Your task to perform on an android device: Set the phone to "Do not disturb". Image 0: 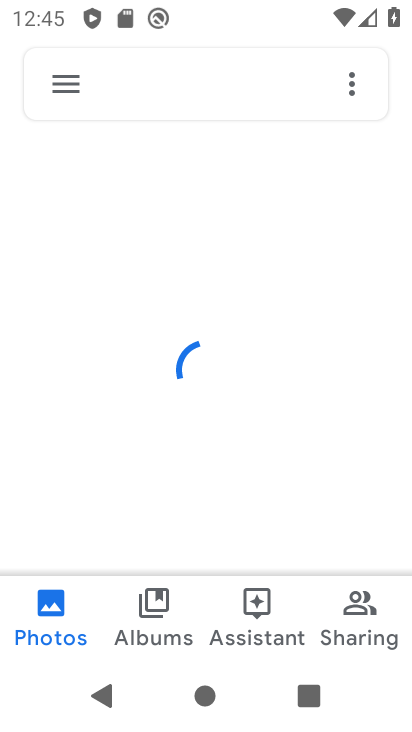
Step 0: press home button
Your task to perform on an android device: Set the phone to "Do not disturb". Image 1: 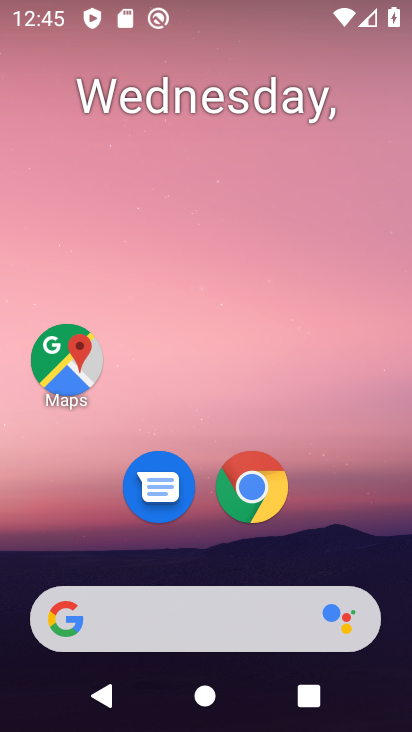
Step 1: drag from (363, 534) to (370, 80)
Your task to perform on an android device: Set the phone to "Do not disturb". Image 2: 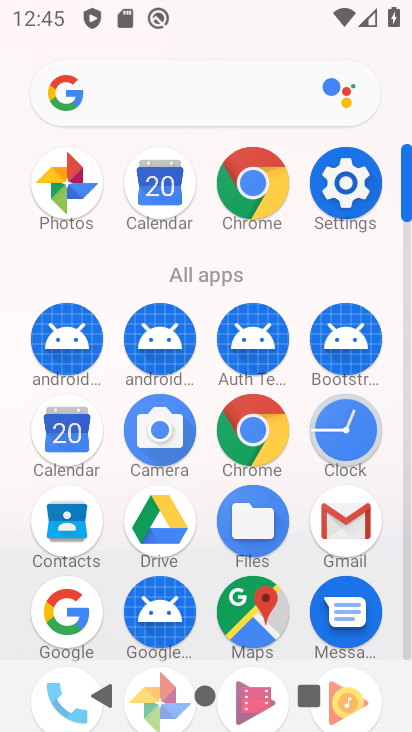
Step 2: click (359, 191)
Your task to perform on an android device: Set the phone to "Do not disturb". Image 3: 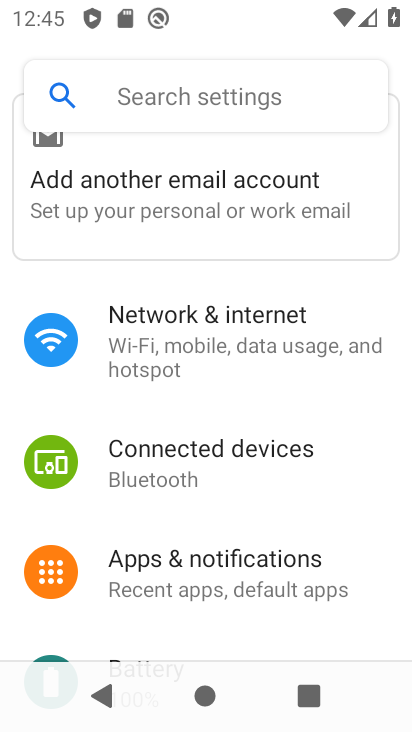
Step 3: drag from (362, 439) to (361, 324)
Your task to perform on an android device: Set the phone to "Do not disturb". Image 4: 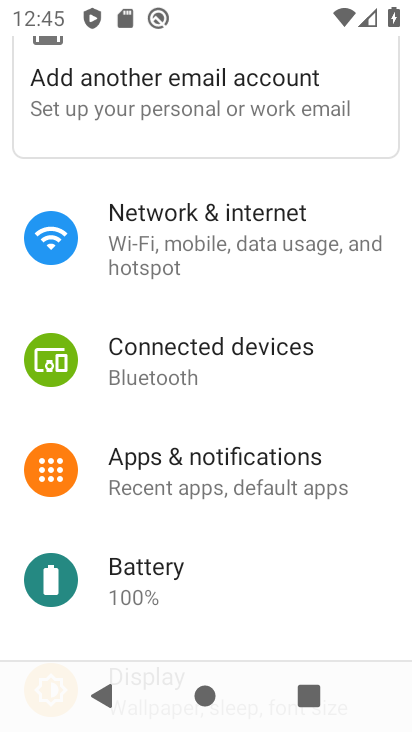
Step 4: drag from (354, 538) to (354, 389)
Your task to perform on an android device: Set the phone to "Do not disturb". Image 5: 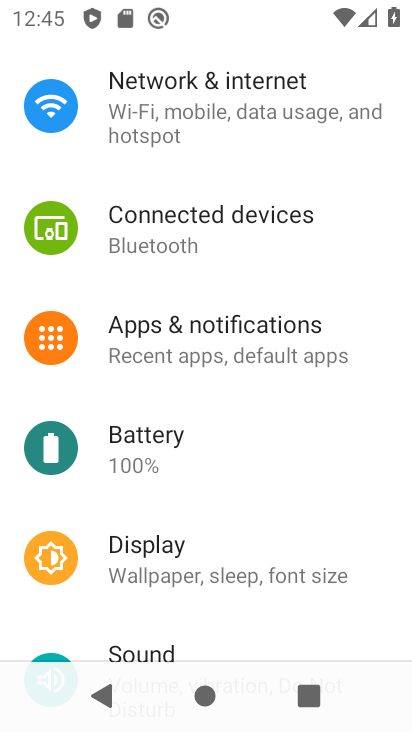
Step 5: drag from (343, 503) to (341, 357)
Your task to perform on an android device: Set the phone to "Do not disturb". Image 6: 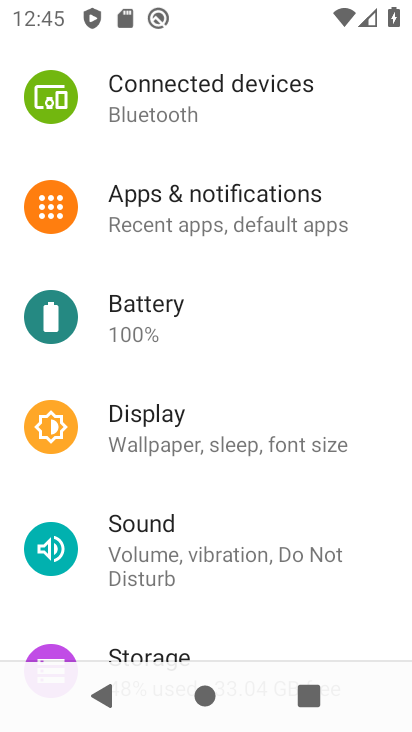
Step 6: drag from (337, 507) to (340, 391)
Your task to perform on an android device: Set the phone to "Do not disturb". Image 7: 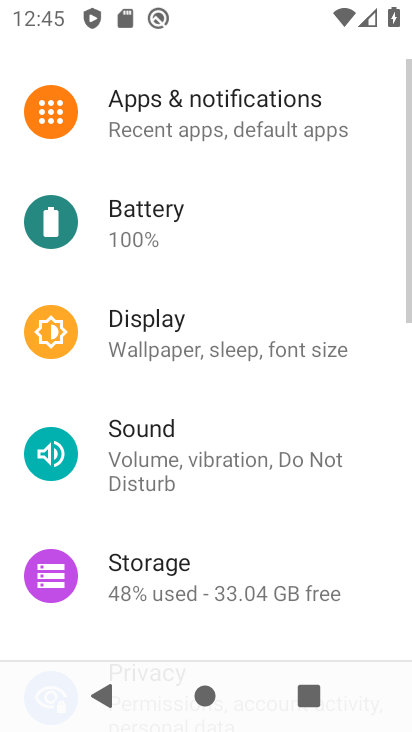
Step 7: drag from (350, 535) to (352, 426)
Your task to perform on an android device: Set the phone to "Do not disturb". Image 8: 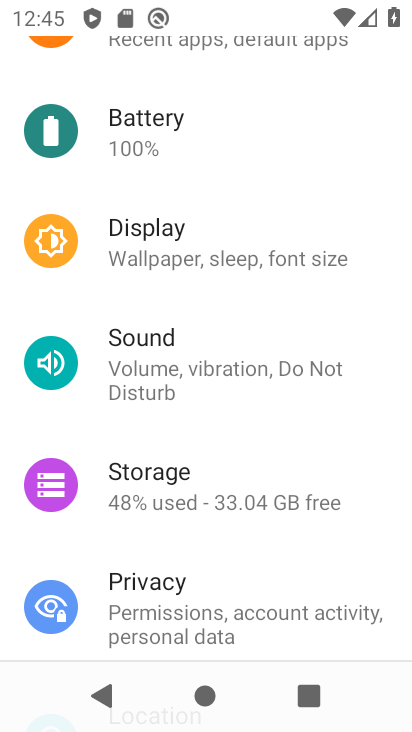
Step 8: drag from (364, 548) to (373, 421)
Your task to perform on an android device: Set the phone to "Do not disturb". Image 9: 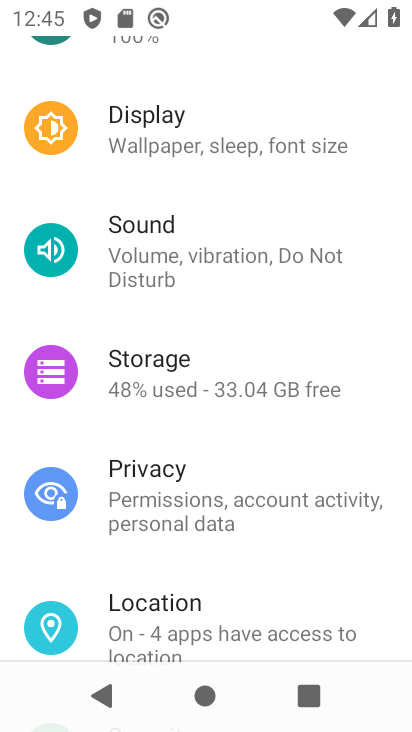
Step 9: drag from (346, 560) to (354, 418)
Your task to perform on an android device: Set the phone to "Do not disturb". Image 10: 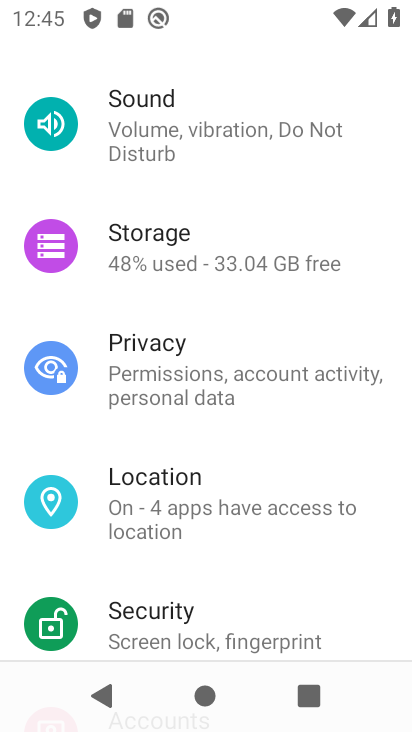
Step 10: drag from (341, 571) to (347, 468)
Your task to perform on an android device: Set the phone to "Do not disturb". Image 11: 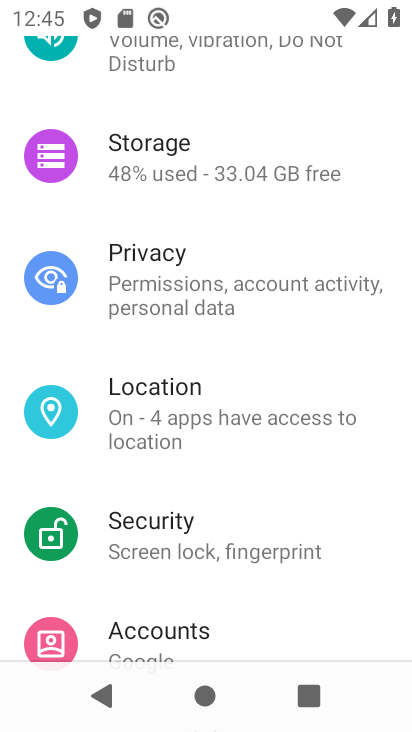
Step 11: drag from (355, 613) to (355, 397)
Your task to perform on an android device: Set the phone to "Do not disturb". Image 12: 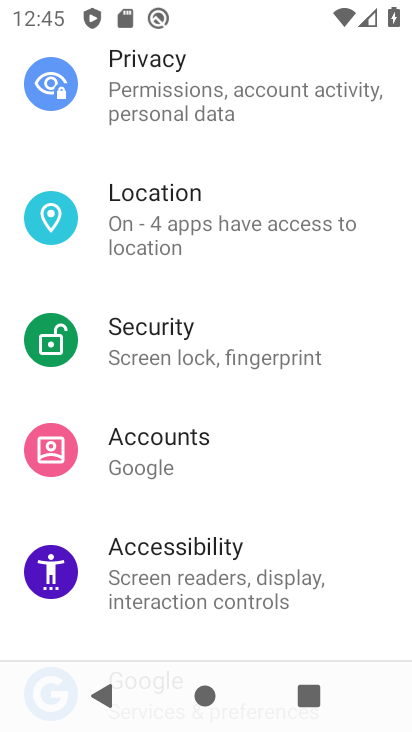
Step 12: drag from (352, 504) to (354, 375)
Your task to perform on an android device: Set the phone to "Do not disturb". Image 13: 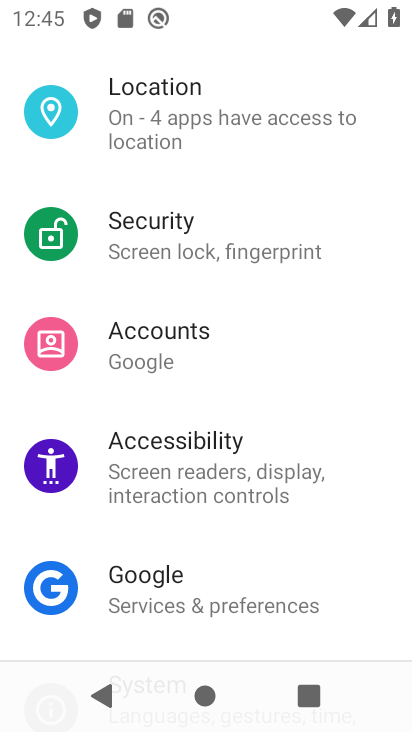
Step 13: drag from (338, 536) to (338, 347)
Your task to perform on an android device: Set the phone to "Do not disturb". Image 14: 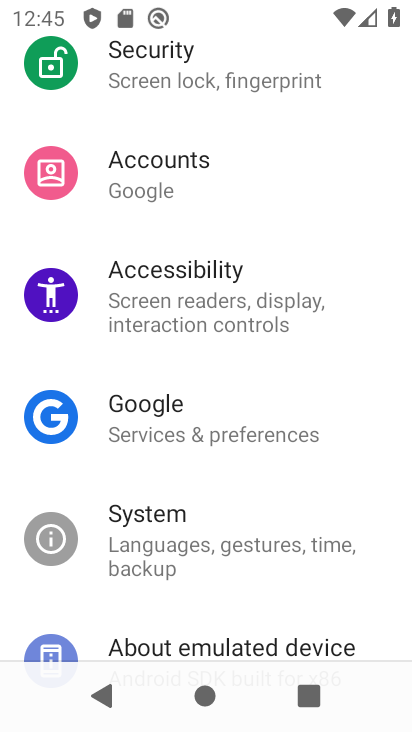
Step 14: drag from (354, 254) to (360, 381)
Your task to perform on an android device: Set the phone to "Do not disturb". Image 15: 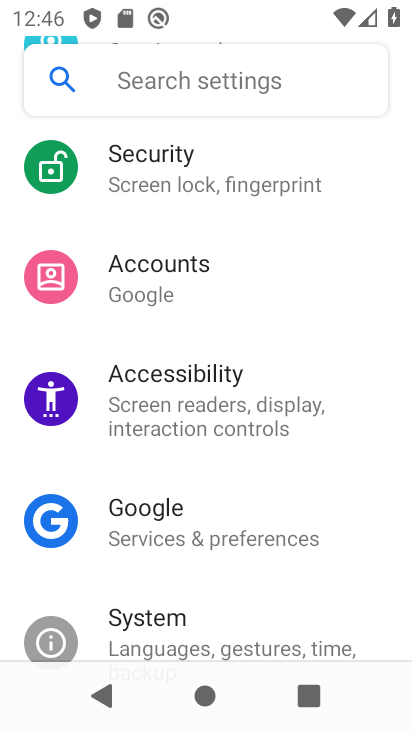
Step 15: drag from (356, 270) to (365, 436)
Your task to perform on an android device: Set the phone to "Do not disturb". Image 16: 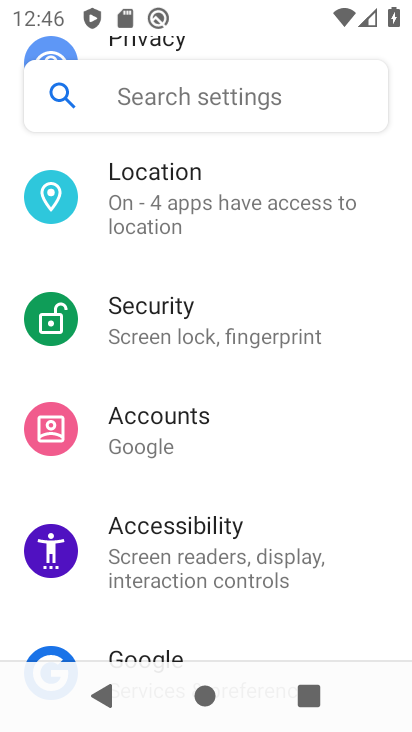
Step 16: drag from (358, 282) to (365, 429)
Your task to perform on an android device: Set the phone to "Do not disturb". Image 17: 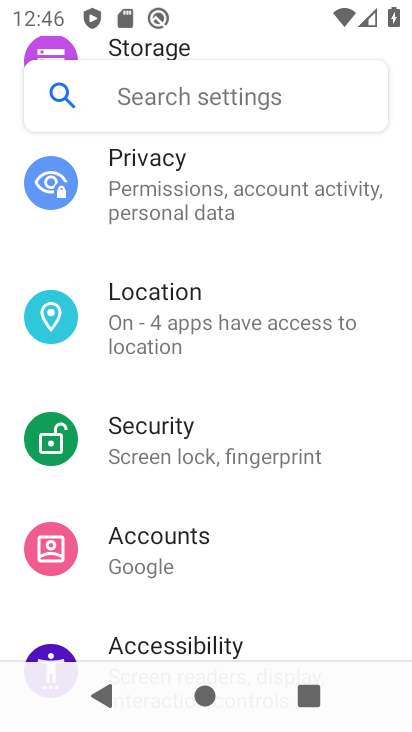
Step 17: drag from (372, 273) to (364, 412)
Your task to perform on an android device: Set the phone to "Do not disturb". Image 18: 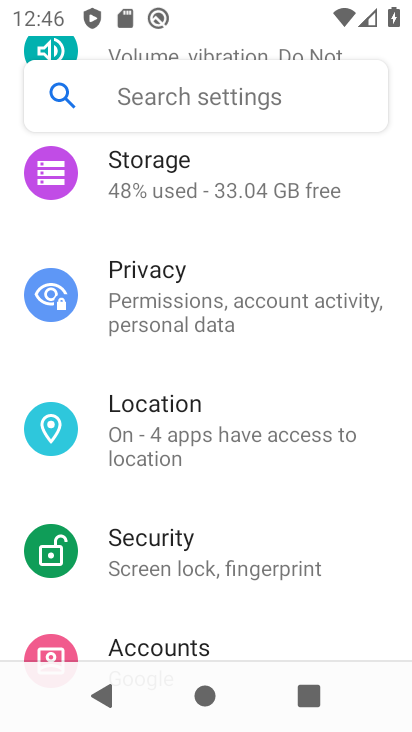
Step 18: drag from (350, 245) to (351, 381)
Your task to perform on an android device: Set the phone to "Do not disturb". Image 19: 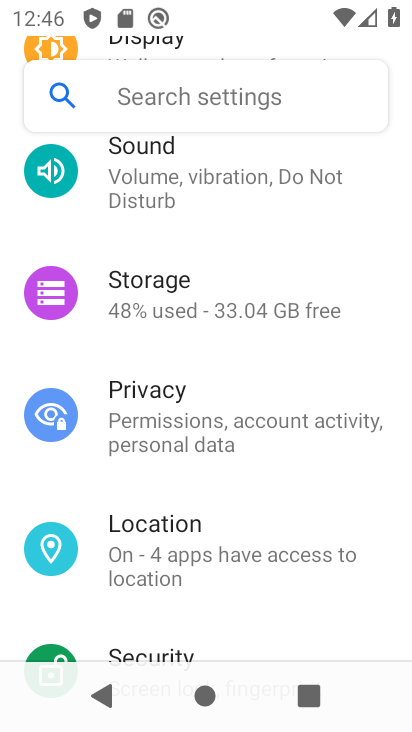
Step 19: drag from (345, 257) to (334, 404)
Your task to perform on an android device: Set the phone to "Do not disturb". Image 20: 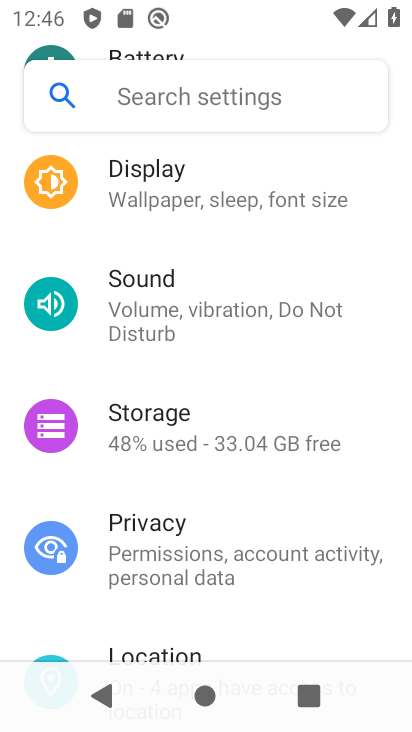
Step 20: click (273, 309)
Your task to perform on an android device: Set the phone to "Do not disturb". Image 21: 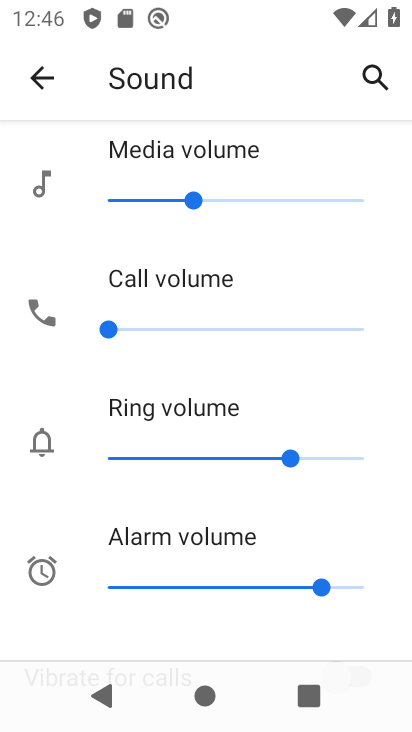
Step 21: drag from (334, 506) to (341, 364)
Your task to perform on an android device: Set the phone to "Do not disturb". Image 22: 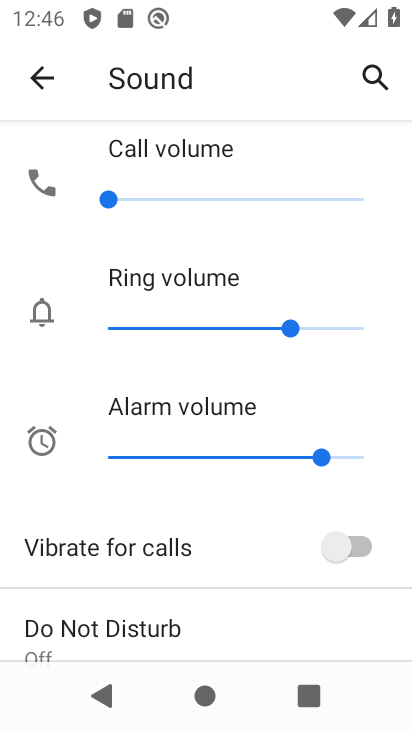
Step 22: drag from (268, 561) to (266, 432)
Your task to perform on an android device: Set the phone to "Do not disturb". Image 23: 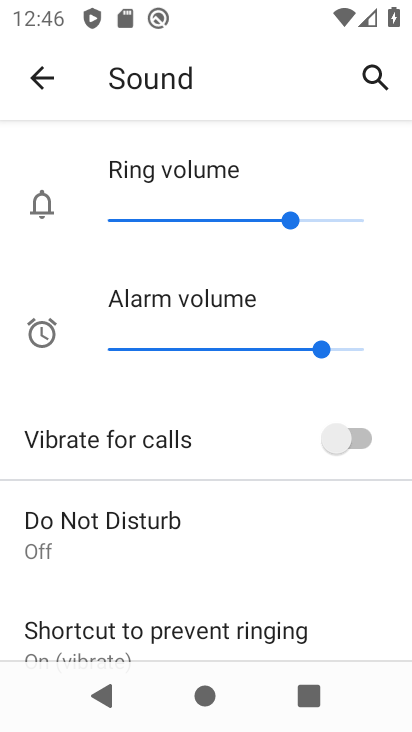
Step 23: drag from (254, 537) to (254, 412)
Your task to perform on an android device: Set the phone to "Do not disturb". Image 24: 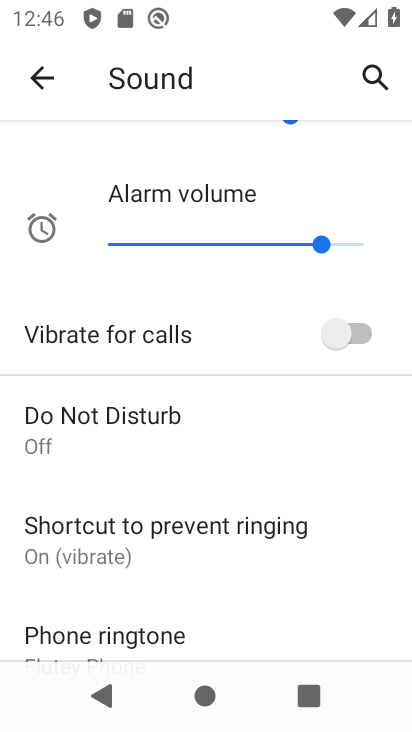
Step 24: click (175, 435)
Your task to perform on an android device: Set the phone to "Do not disturb". Image 25: 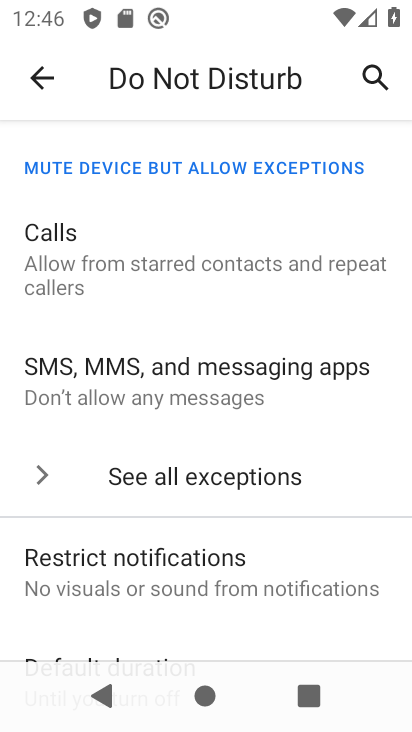
Step 25: drag from (266, 565) to (284, 463)
Your task to perform on an android device: Set the phone to "Do not disturb". Image 26: 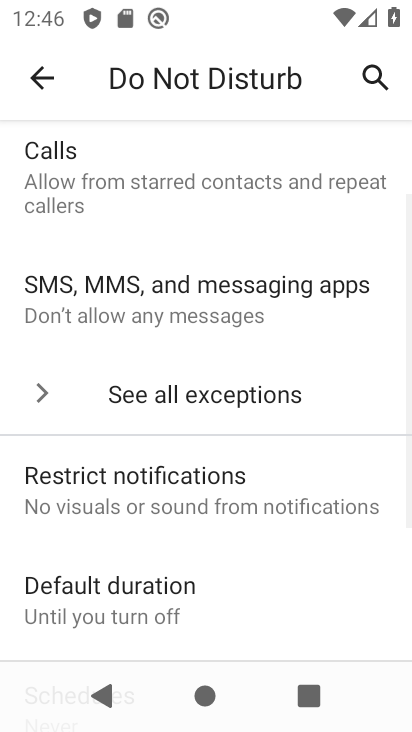
Step 26: drag from (272, 578) to (285, 410)
Your task to perform on an android device: Set the phone to "Do not disturb". Image 27: 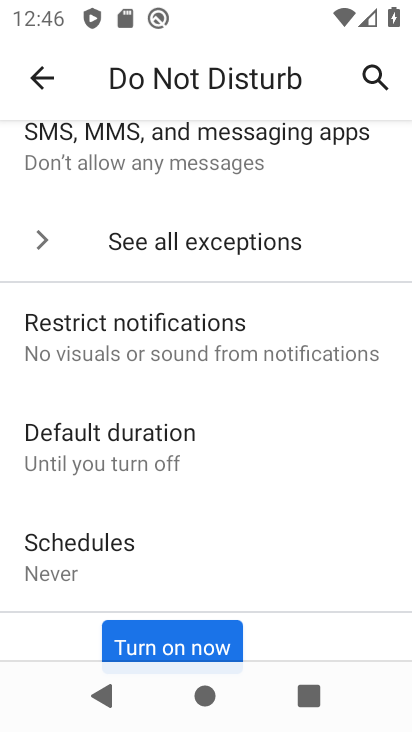
Step 27: drag from (309, 522) to (311, 403)
Your task to perform on an android device: Set the phone to "Do not disturb". Image 28: 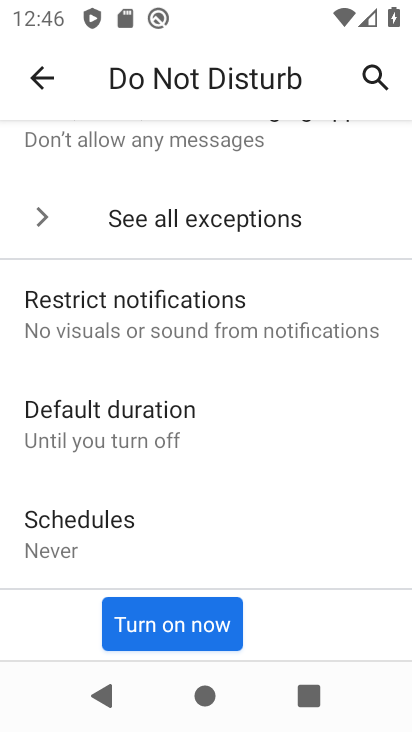
Step 28: drag from (299, 543) to (306, 400)
Your task to perform on an android device: Set the phone to "Do not disturb". Image 29: 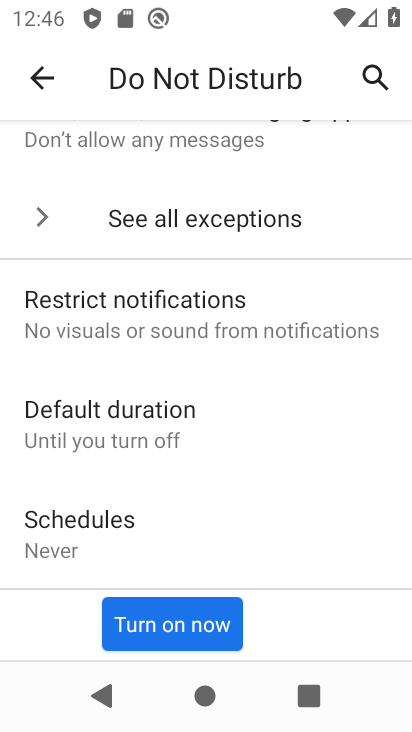
Step 29: click (196, 618)
Your task to perform on an android device: Set the phone to "Do not disturb". Image 30: 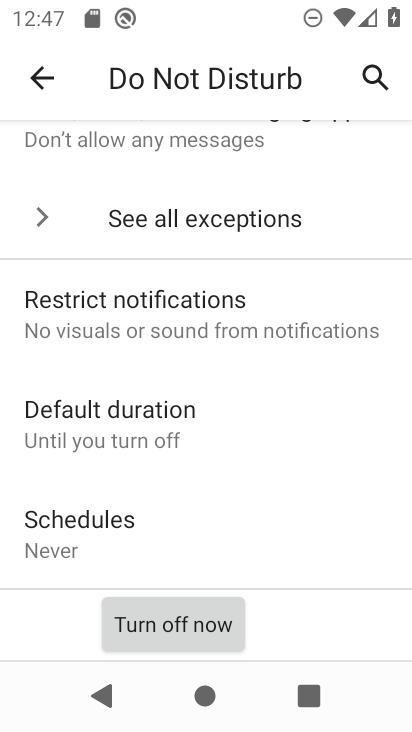
Step 30: task complete